Your task to perform on an android device: find which apps use the phone's location Image 0: 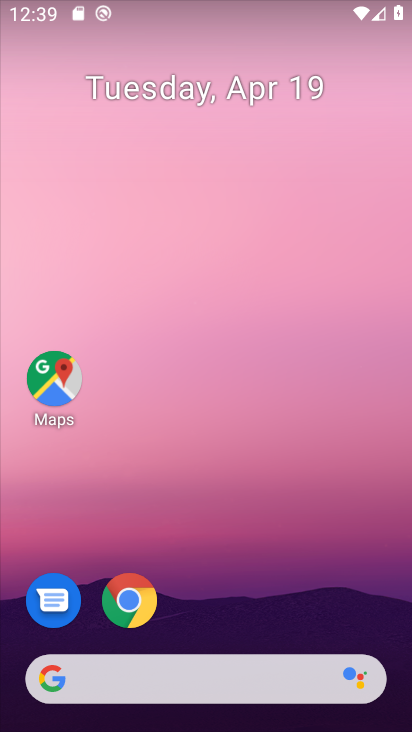
Step 0: drag from (258, 641) to (216, 89)
Your task to perform on an android device: find which apps use the phone's location Image 1: 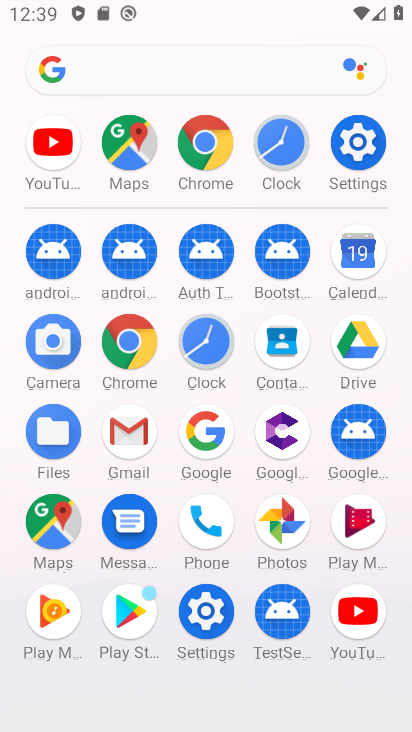
Step 1: click (362, 153)
Your task to perform on an android device: find which apps use the phone's location Image 2: 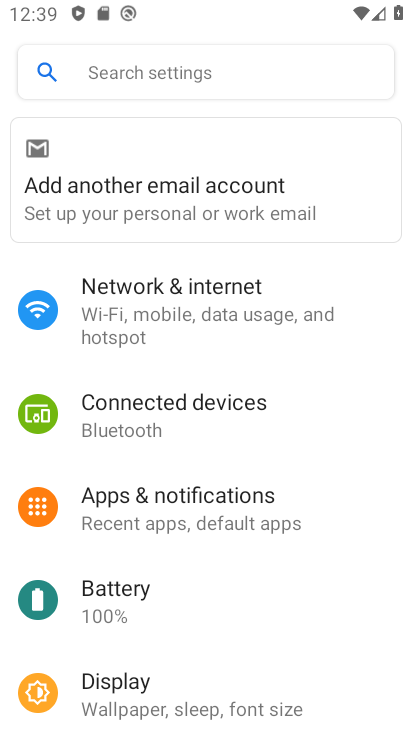
Step 2: drag from (166, 631) to (128, 193)
Your task to perform on an android device: find which apps use the phone's location Image 3: 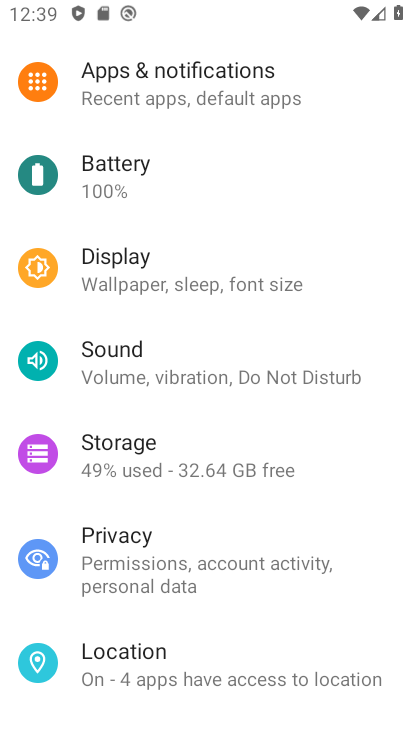
Step 3: click (154, 695)
Your task to perform on an android device: find which apps use the phone's location Image 4: 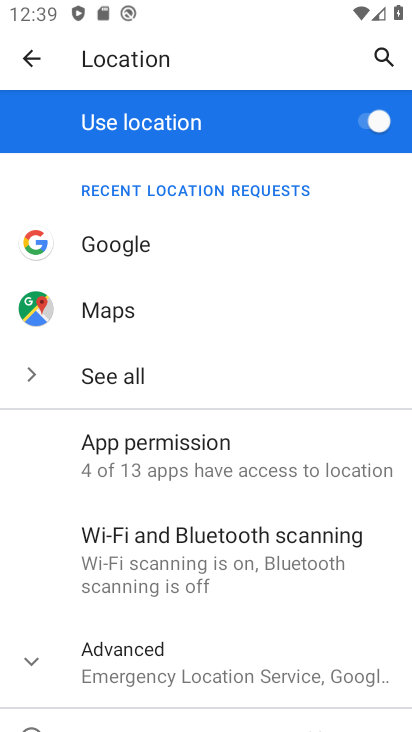
Step 4: click (117, 459)
Your task to perform on an android device: find which apps use the phone's location Image 5: 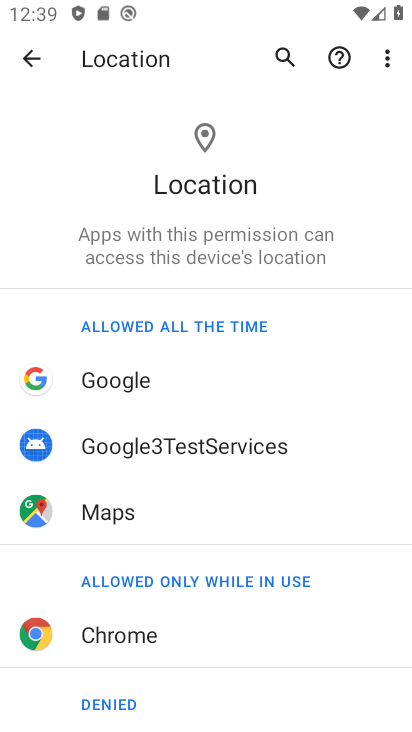
Step 5: task complete